Your task to perform on an android device: Go to privacy settings Image 0: 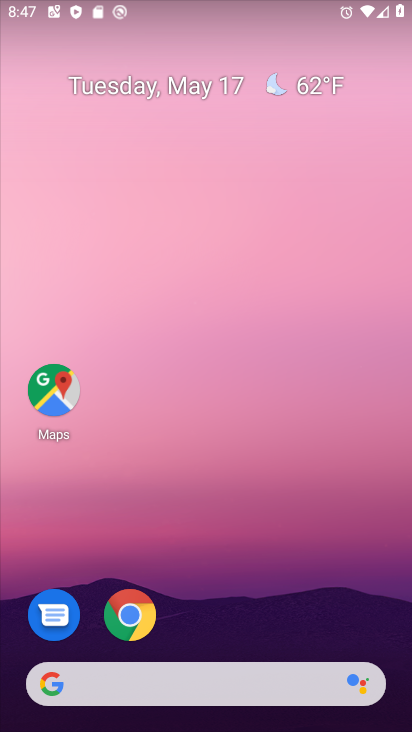
Step 0: drag from (306, 636) to (235, 56)
Your task to perform on an android device: Go to privacy settings Image 1: 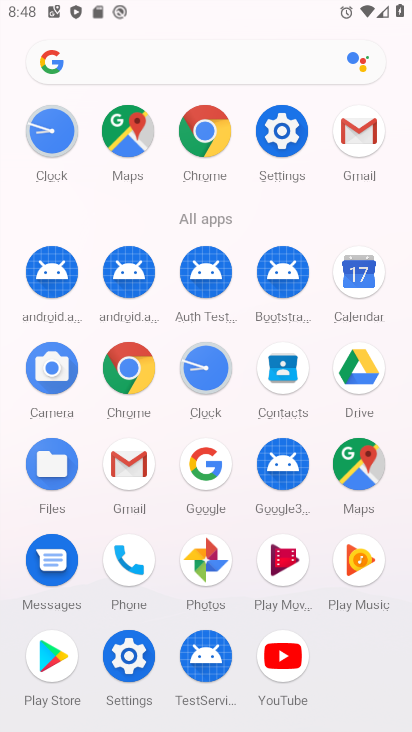
Step 1: click (134, 649)
Your task to perform on an android device: Go to privacy settings Image 2: 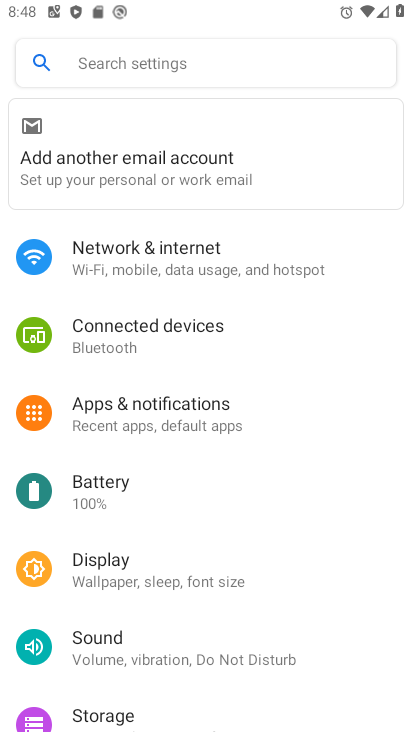
Step 2: drag from (225, 661) to (214, 178)
Your task to perform on an android device: Go to privacy settings Image 3: 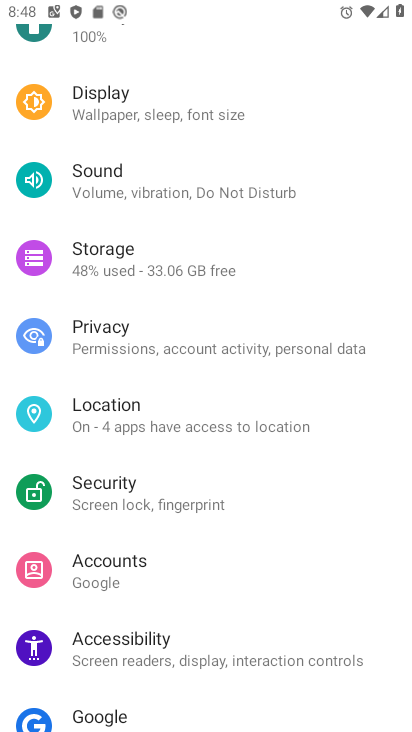
Step 3: click (135, 334)
Your task to perform on an android device: Go to privacy settings Image 4: 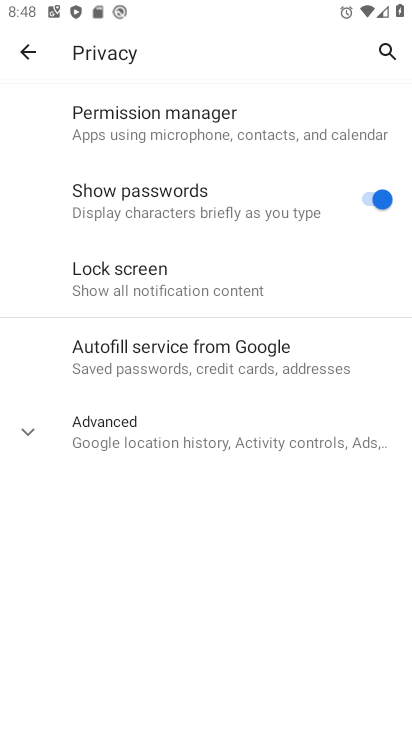
Step 4: task complete